Your task to perform on an android device: turn on notifications settings in the gmail app Image 0: 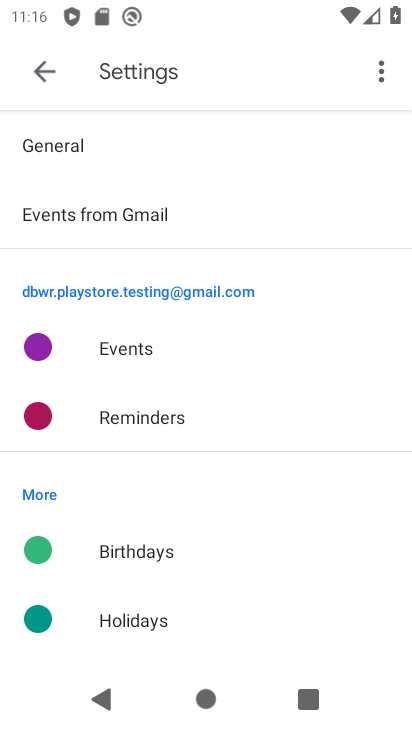
Step 0: press home button
Your task to perform on an android device: turn on notifications settings in the gmail app Image 1: 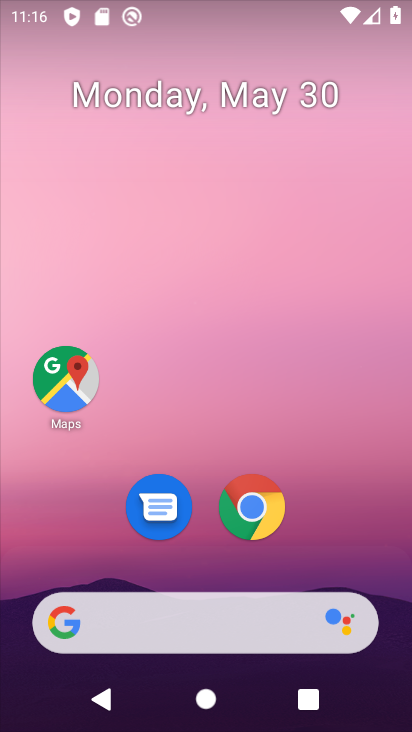
Step 1: drag from (362, 545) to (339, 137)
Your task to perform on an android device: turn on notifications settings in the gmail app Image 2: 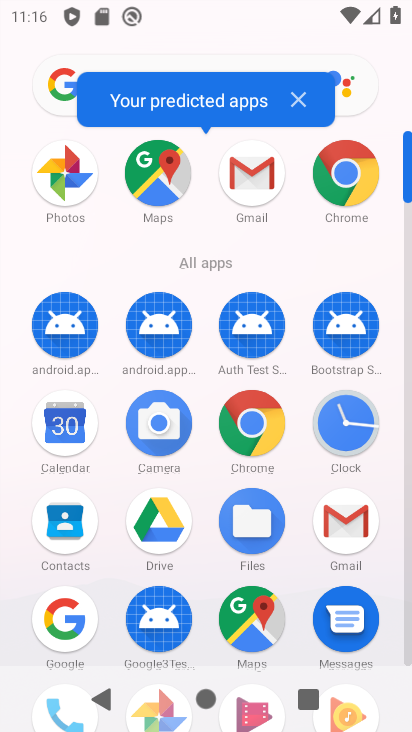
Step 2: click (253, 170)
Your task to perform on an android device: turn on notifications settings in the gmail app Image 3: 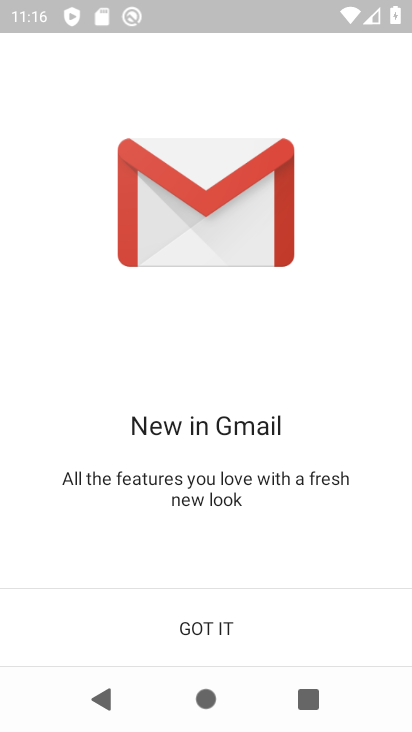
Step 3: click (193, 618)
Your task to perform on an android device: turn on notifications settings in the gmail app Image 4: 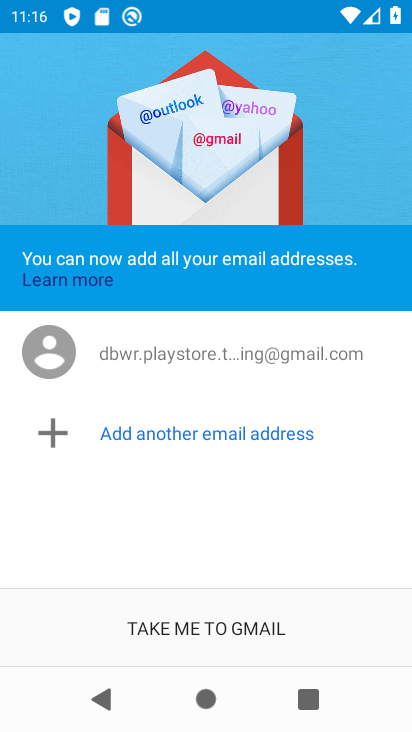
Step 4: click (216, 625)
Your task to perform on an android device: turn on notifications settings in the gmail app Image 5: 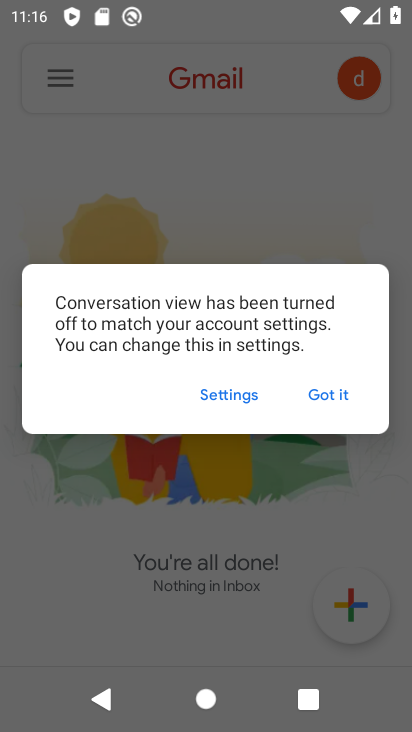
Step 5: click (323, 391)
Your task to perform on an android device: turn on notifications settings in the gmail app Image 6: 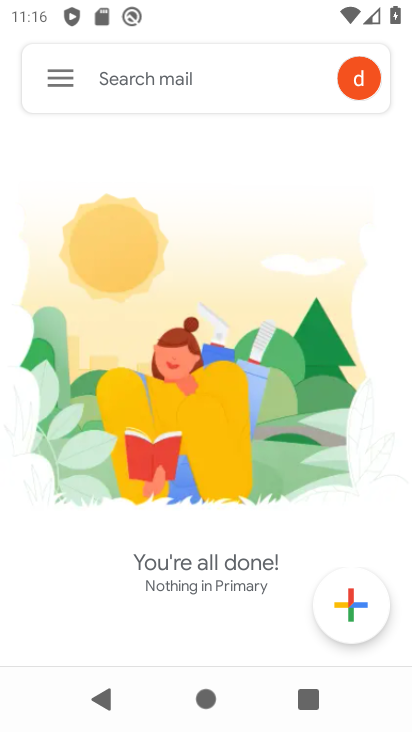
Step 6: drag from (45, 79) to (65, 487)
Your task to perform on an android device: turn on notifications settings in the gmail app Image 7: 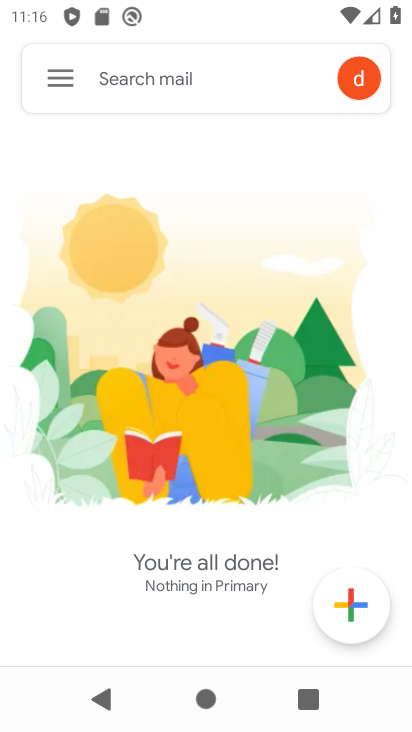
Step 7: click (63, 74)
Your task to perform on an android device: turn on notifications settings in the gmail app Image 8: 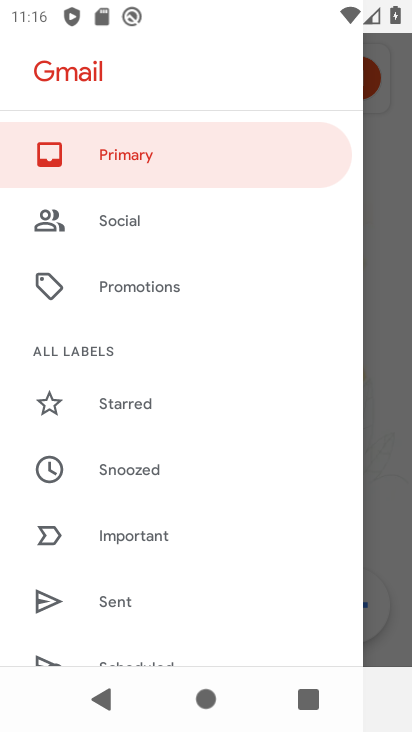
Step 8: drag from (275, 601) to (233, 87)
Your task to perform on an android device: turn on notifications settings in the gmail app Image 9: 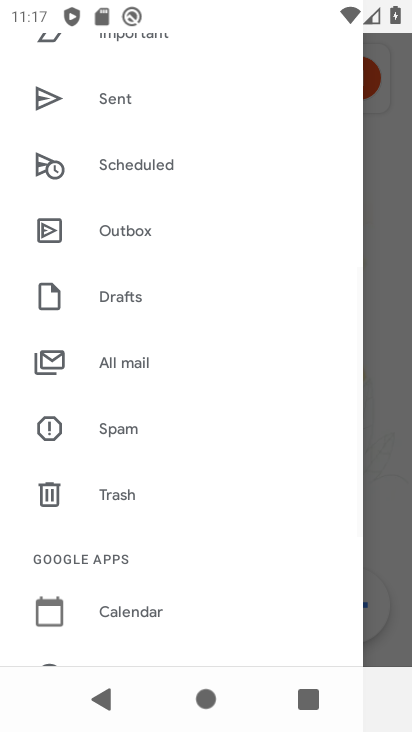
Step 9: drag from (272, 634) to (226, 317)
Your task to perform on an android device: turn on notifications settings in the gmail app Image 10: 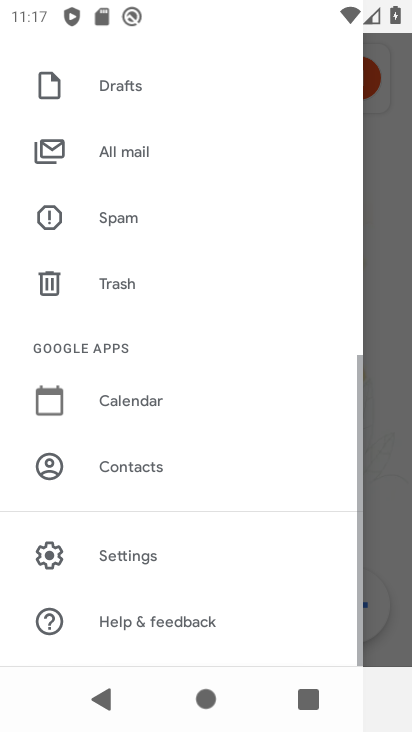
Step 10: click (175, 546)
Your task to perform on an android device: turn on notifications settings in the gmail app Image 11: 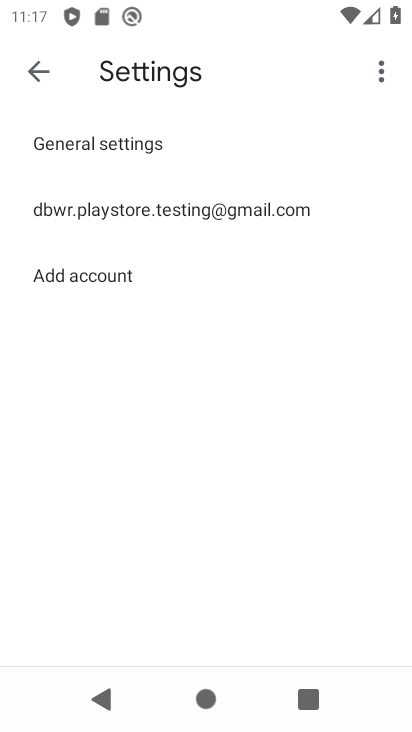
Step 11: click (170, 217)
Your task to perform on an android device: turn on notifications settings in the gmail app Image 12: 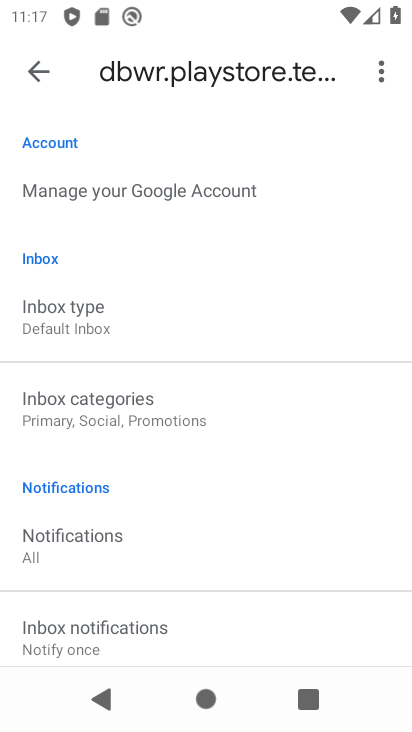
Step 12: drag from (321, 589) to (266, 272)
Your task to perform on an android device: turn on notifications settings in the gmail app Image 13: 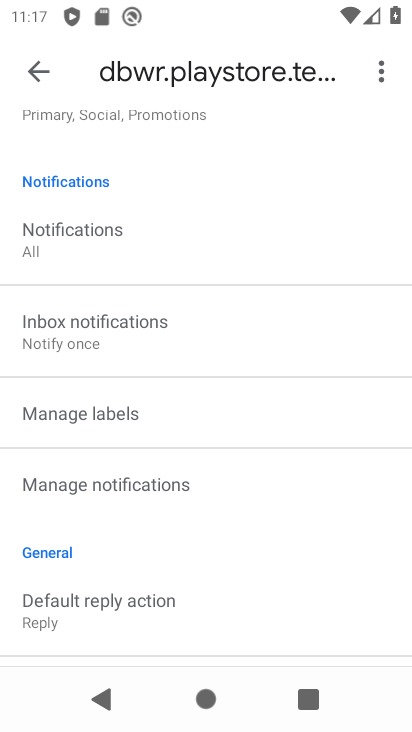
Step 13: click (198, 485)
Your task to perform on an android device: turn on notifications settings in the gmail app Image 14: 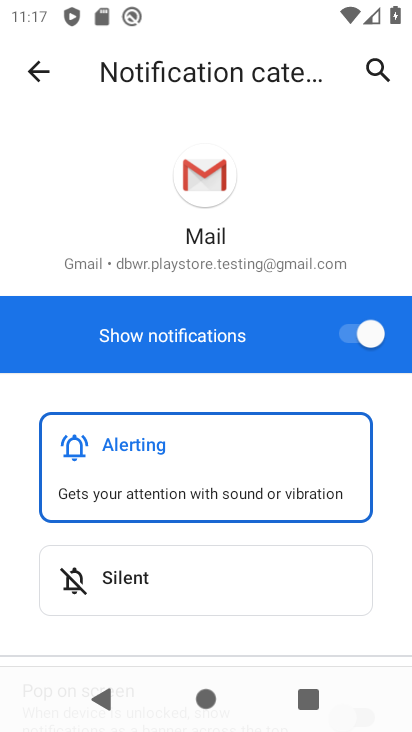
Step 14: task complete